Your task to perform on an android device: Open ESPN.com Image 0: 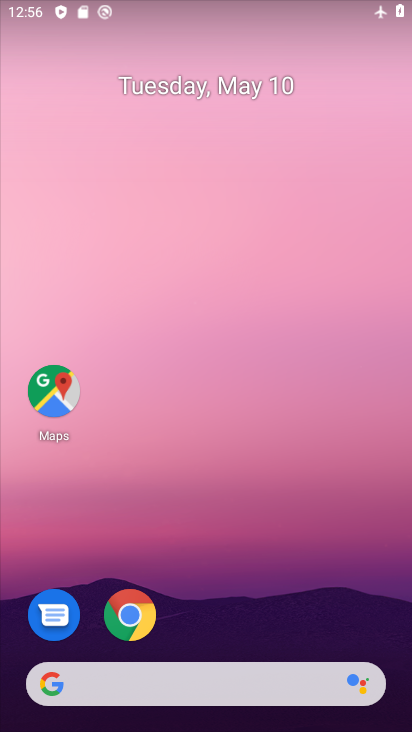
Step 0: click (140, 625)
Your task to perform on an android device: Open ESPN.com Image 1: 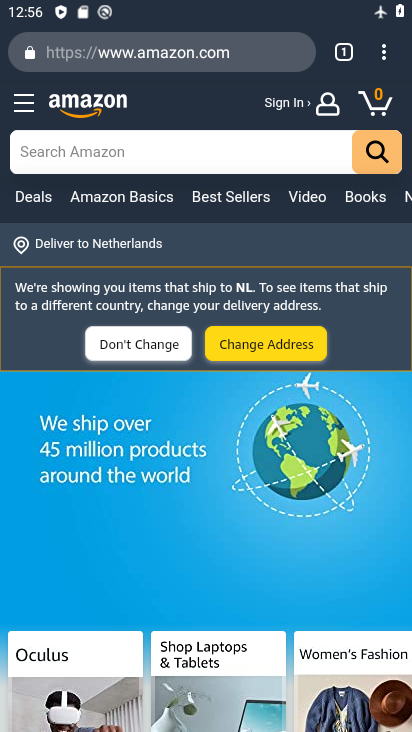
Step 1: click (239, 50)
Your task to perform on an android device: Open ESPN.com Image 2: 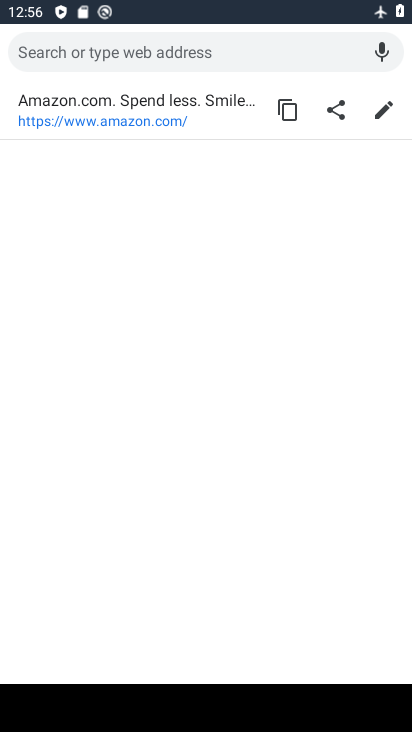
Step 2: type "ESPN.com"
Your task to perform on an android device: Open ESPN.com Image 3: 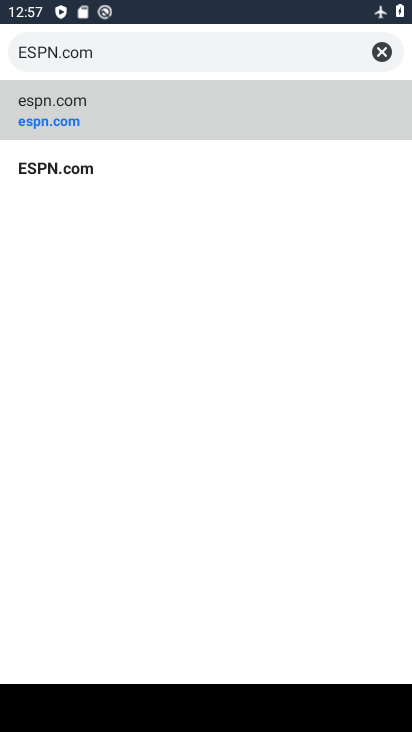
Step 3: click (197, 101)
Your task to perform on an android device: Open ESPN.com Image 4: 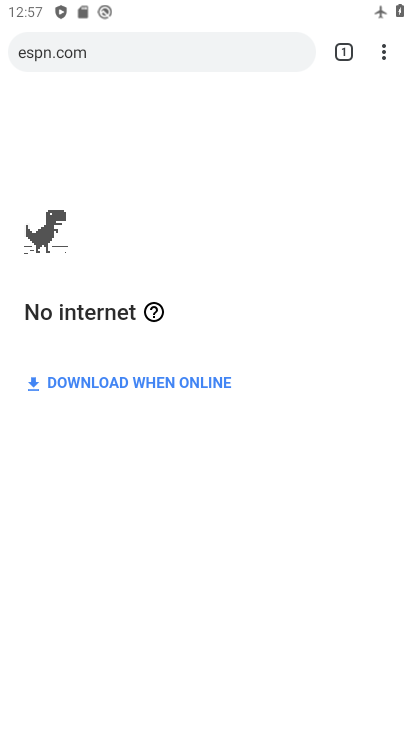
Step 4: task complete